Your task to perform on an android device: Show me popular games on the Play Store Image 0: 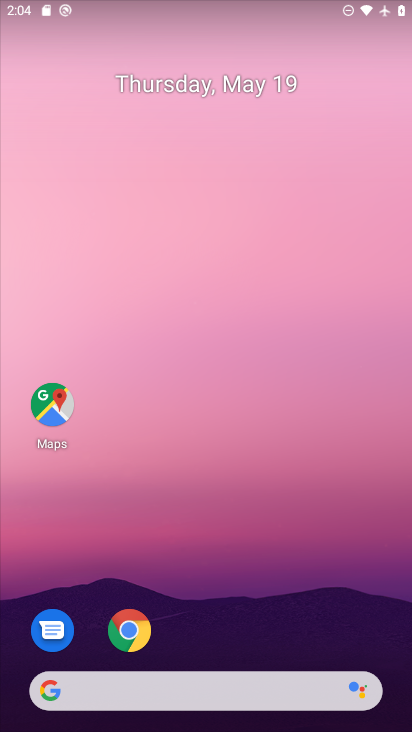
Step 0: drag from (192, 658) to (189, 133)
Your task to perform on an android device: Show me popular games on the Play Store Image 1: 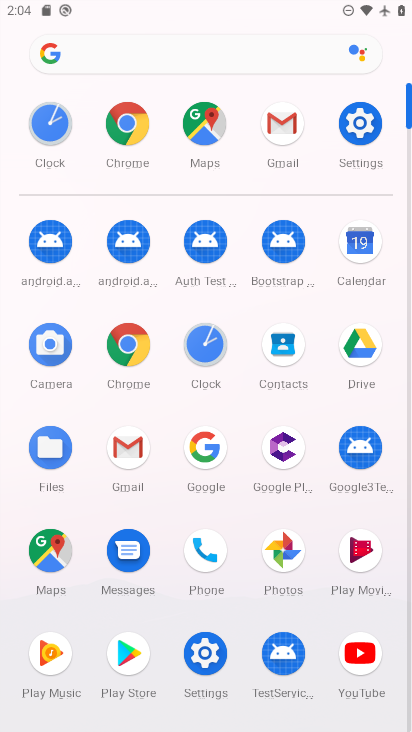
Step 1: click (139, 653)
Your task to perform on an android device: Show me popular games on the Play Store Image 2: 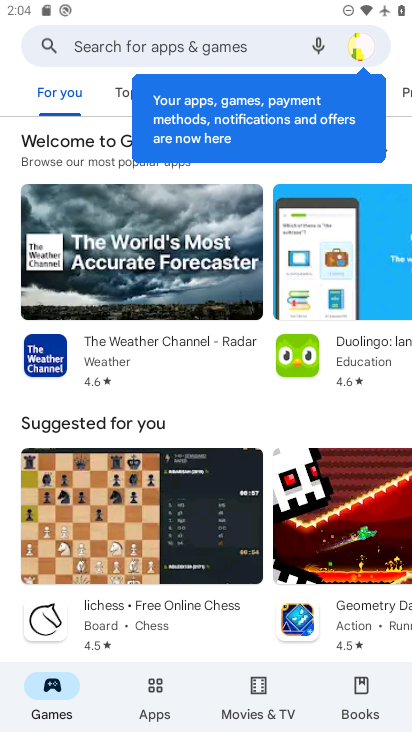
Step 2: click (150, 678)
Your task to perform on an android device: Show me popular games on the Play Store Image 3: 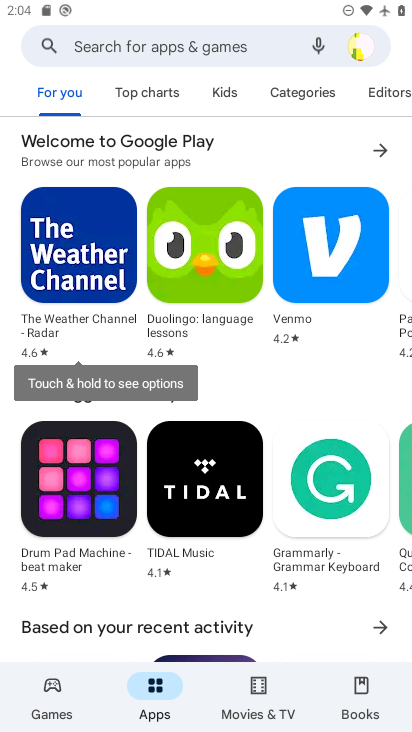
Step 3: click (276, 88)
Your task to perform on an android device: Show me popular games on the Play Store Image 4: 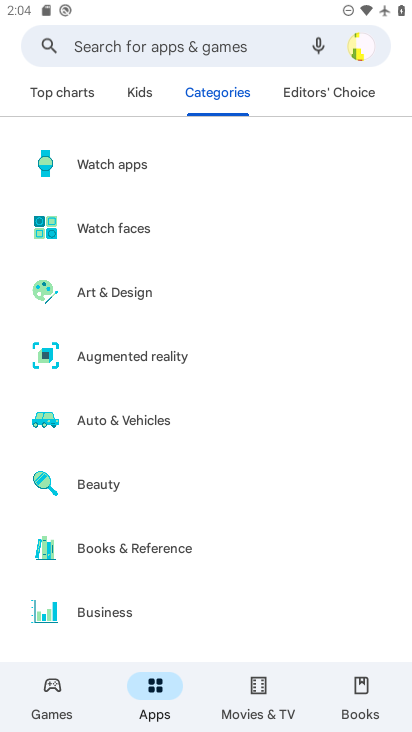
Step 4: drag from (247, 551) to (242, 87)
Your task to perform on an android device: Show me popular games on the Play Store Image 5: 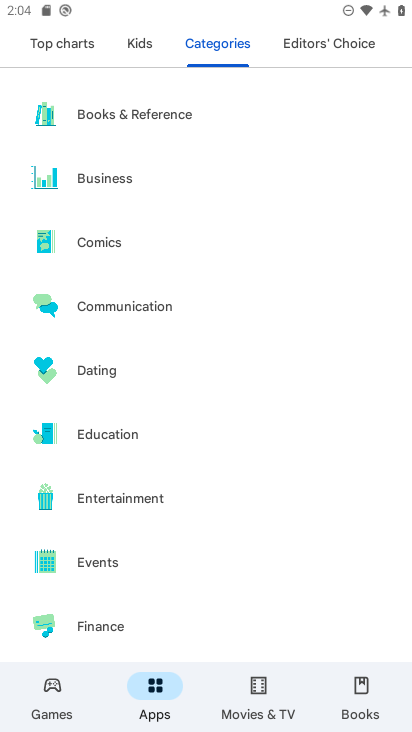
Step 5: click (62, 681)
Your task to perform on an android device: Show me popular games on the Play Store Image 6: 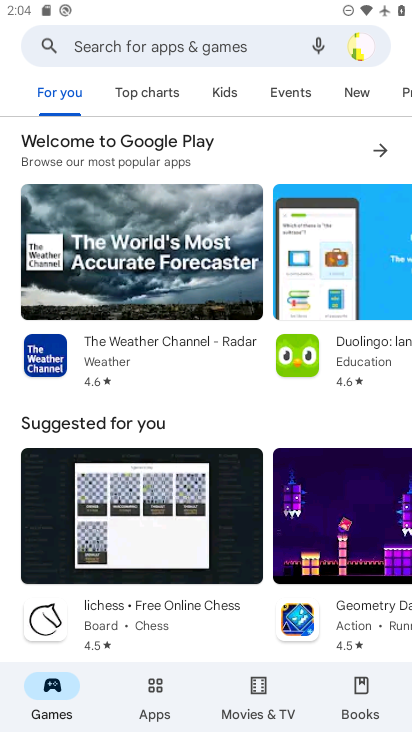
Step 6: drag from (209, 446) to (155, 49)
Your task to perform on an android device: Show me popular games on the Play Store Image 7: 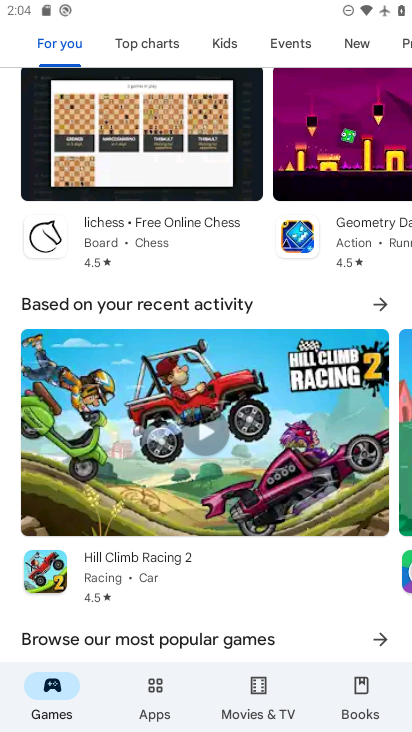
Step 7: drag from (317, 503) to (285, 216)
Your task to perform on an android device: Show me popular games on the Play Store Image 8: 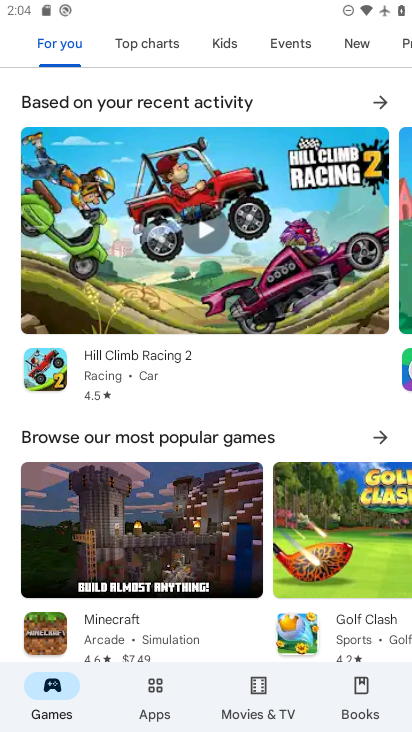
Step 8: click (382, 435)
Your task to perform on an android device: Show me popular games on the Play Store Image 9: 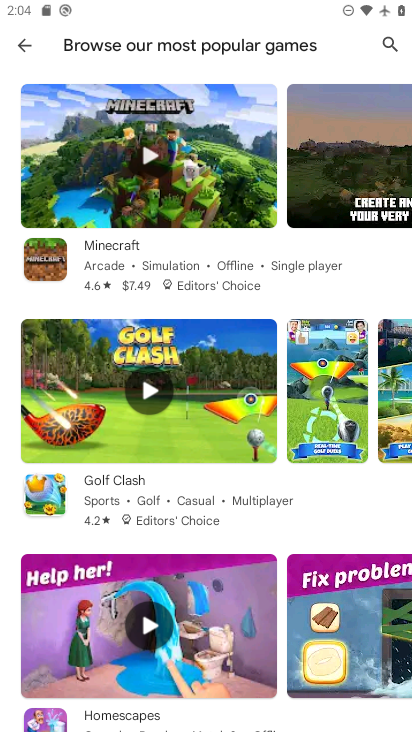
Step 9: task complete